Your task to perform on an android device: change text size in settings app Image 0: 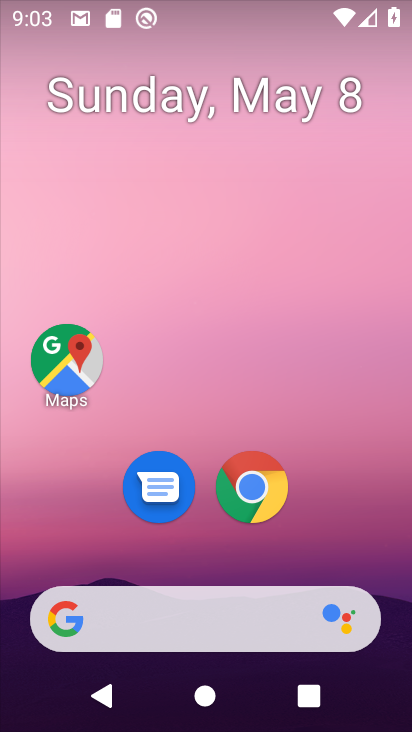
Step 0: drag from (319, 523) to (311, 9)
Your task to perform on an android device: change text size in settings app Image 1: 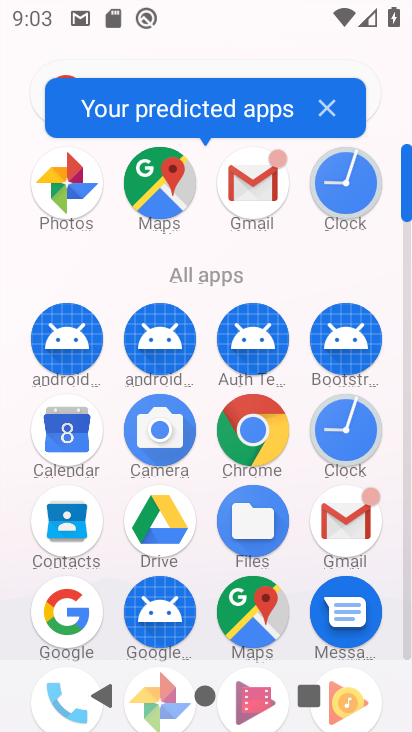
Step 1: drag from (198, 548) to (192, 165)
Your task to perform on an android device: change text size in settings app Image 2: 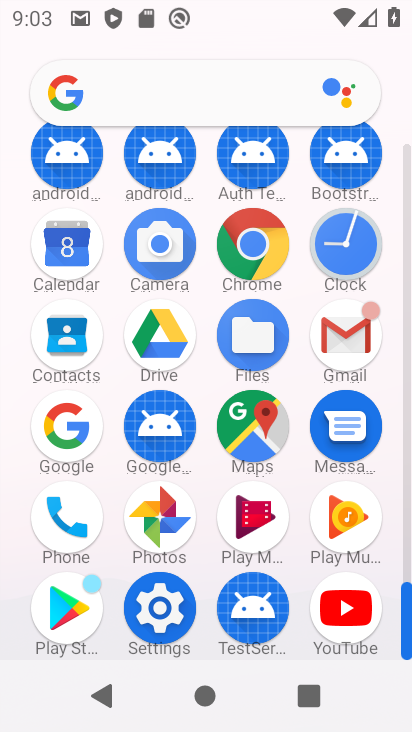
Step 2: click (160, 585)
Your task to perform on an android device: change text size in settings app Image 3: 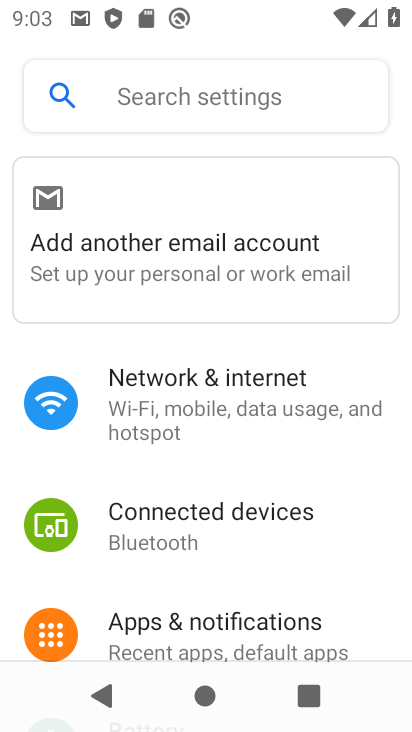
Step 3: drag from (247, 574) to (247, 153)
Your task to perform on an android device: change text size in settings app Image 4: 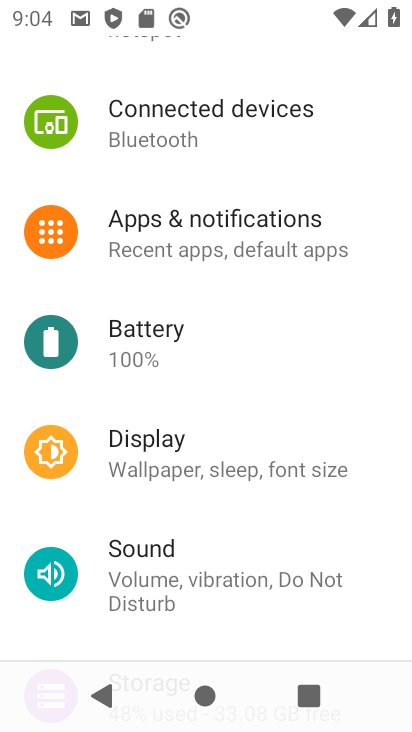
Step 4: click (238, 461)
Your task to perform on an android device: change text size in settings app Image 5: 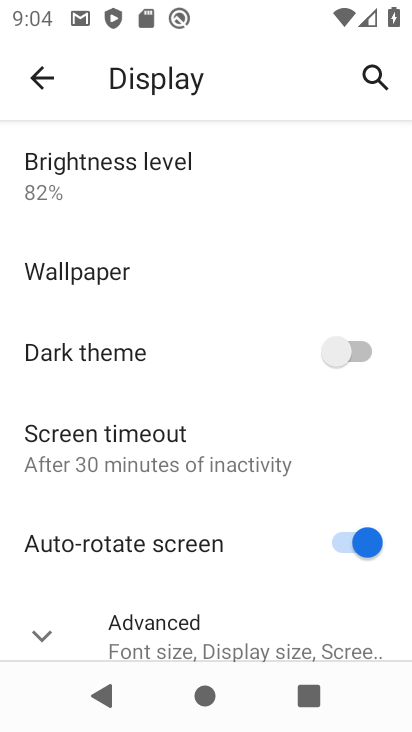
Step 5: click (36, 629)
Your task to perform on an android device: change text size in settings app Image 6: 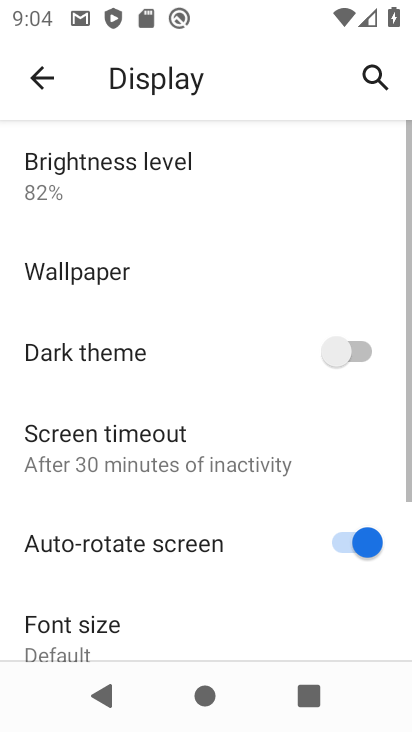
Step 6: drag from (204, 532) to (269, 52)
Your task to perform on an android device: change text size in settings app Image 7: 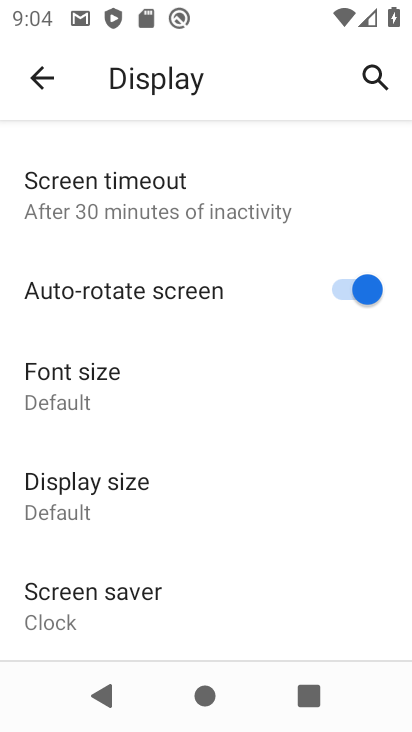
Step 7: click (150, 390)
Your task to perform on an android device: change text size in settings app Image 8: 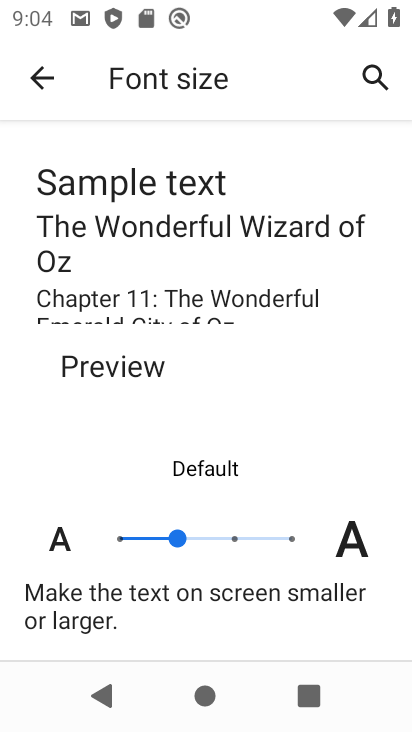
Step 8: click (120, 538)
Your task to perform on an android device: change text size in settings app Image 9: 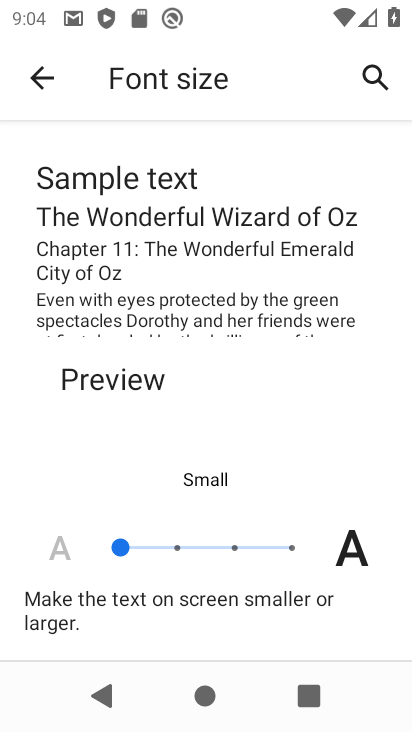
Step 9: task complete